Your task to perform on an android device: Add "asus zenbook" to the cart on newegg.com Image 0: 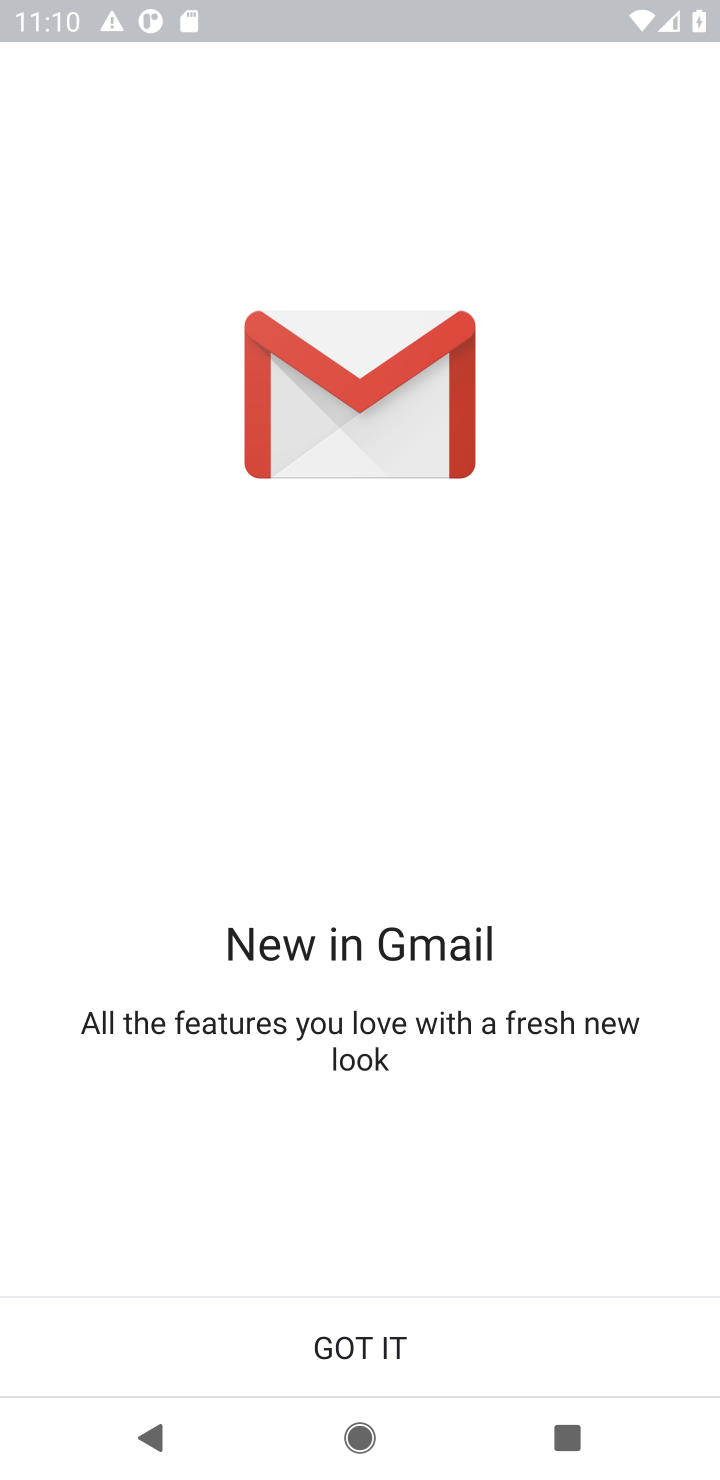
Step 0: press home button
Your task to perform on an android device: Add "asus zenbook" to the cart on newegg.com Image 1: 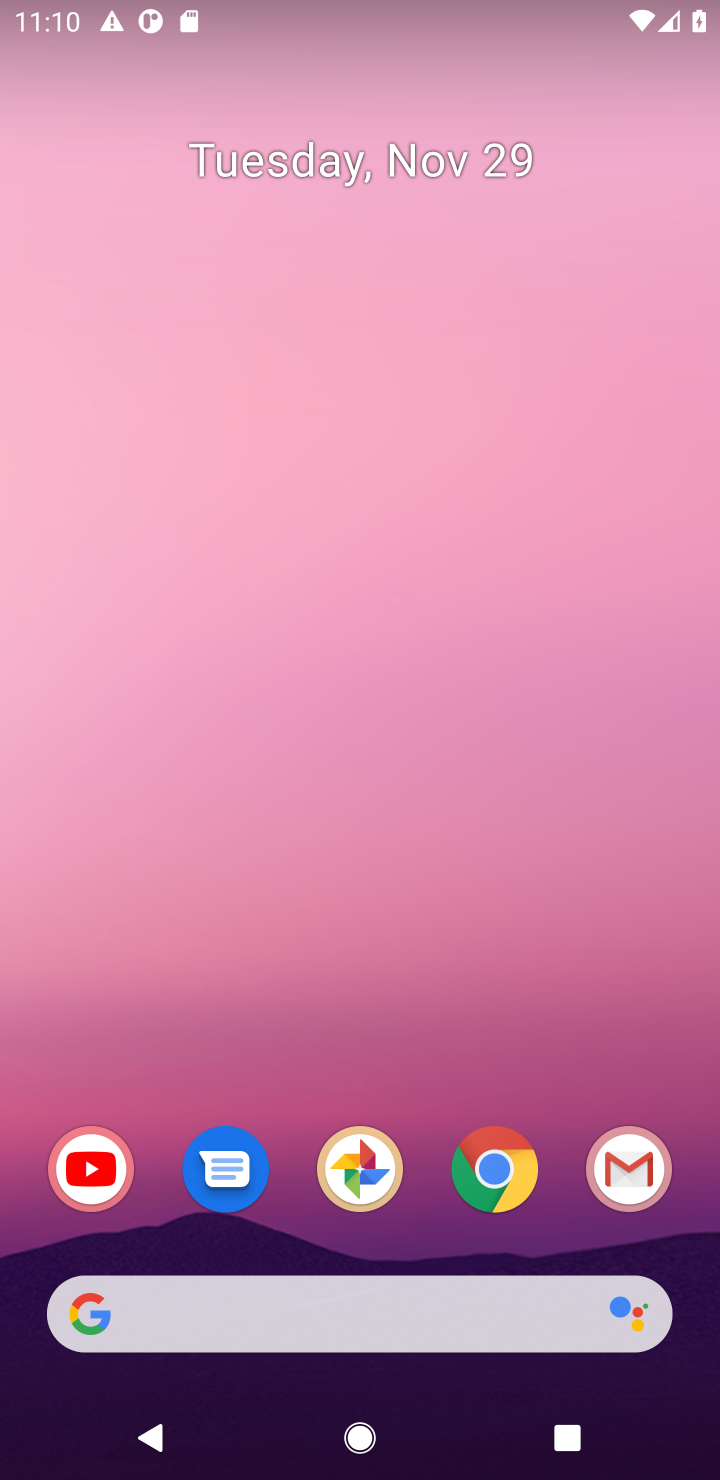
Step 1: click (360, 1308)
Your task to perform on an android device: Add "asus zenbook" to the cart on newegg.com Image 2: 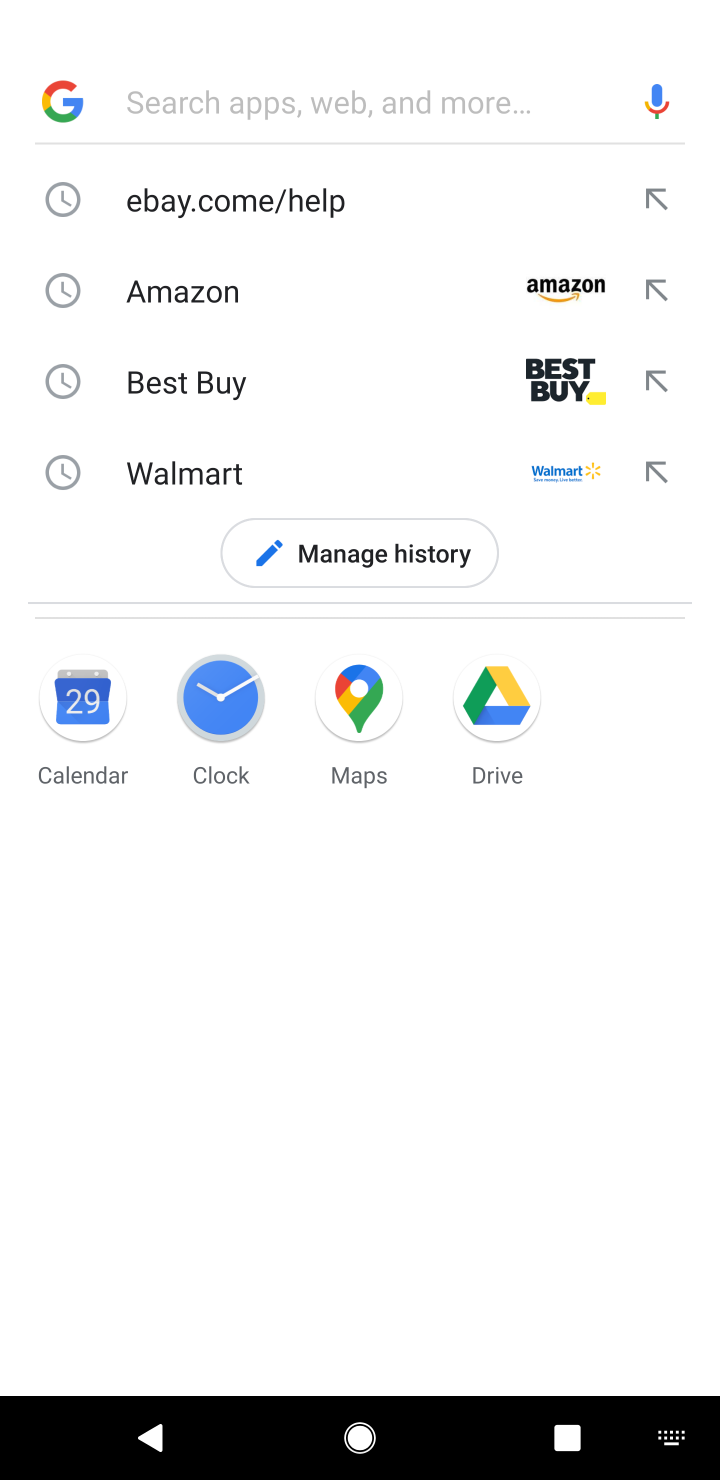
Step 2: type "newegg"
Your task to perform on an android device: Add "asus zenbook" to the cart on newegg.com Image 3: 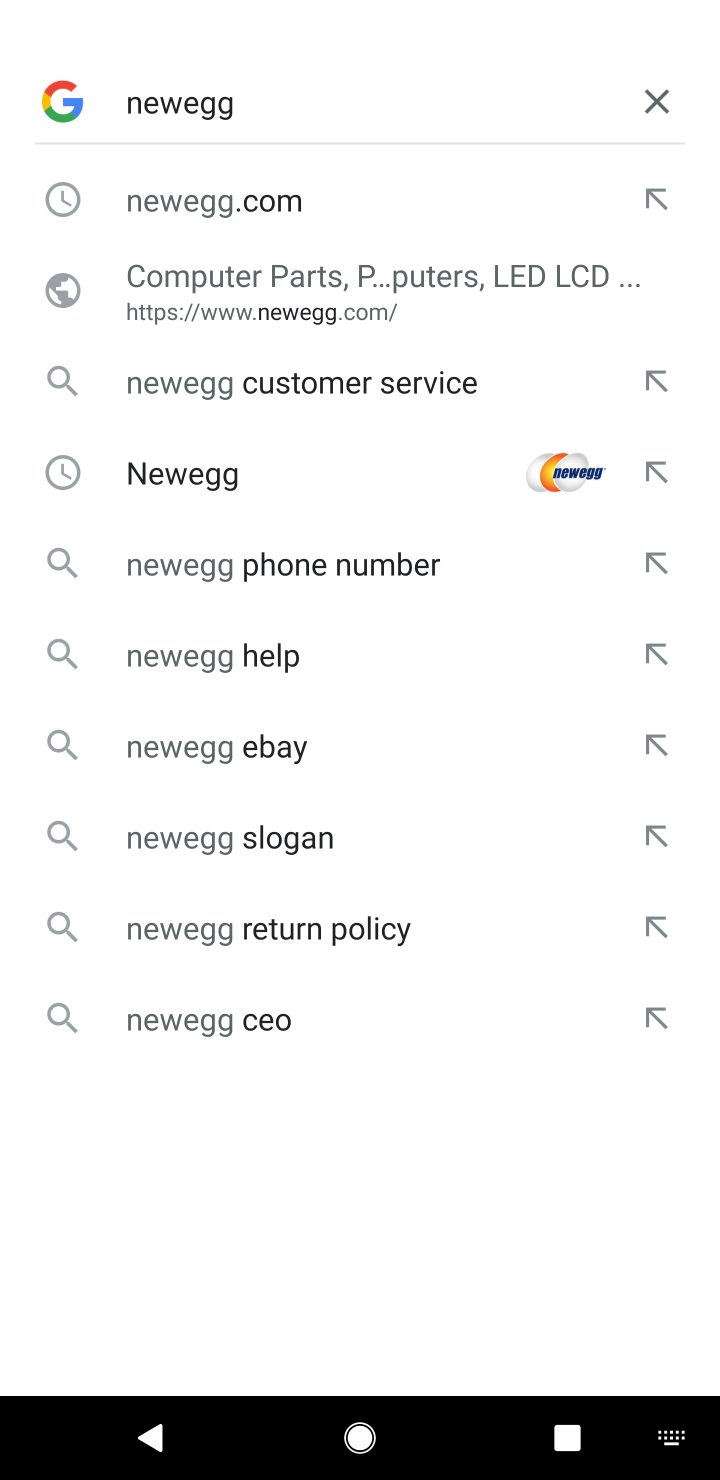
Step 3: click (238, 184)
Your task to perform on an android device: Add "asus zenbook" to the cart on newegg.com Image 4: 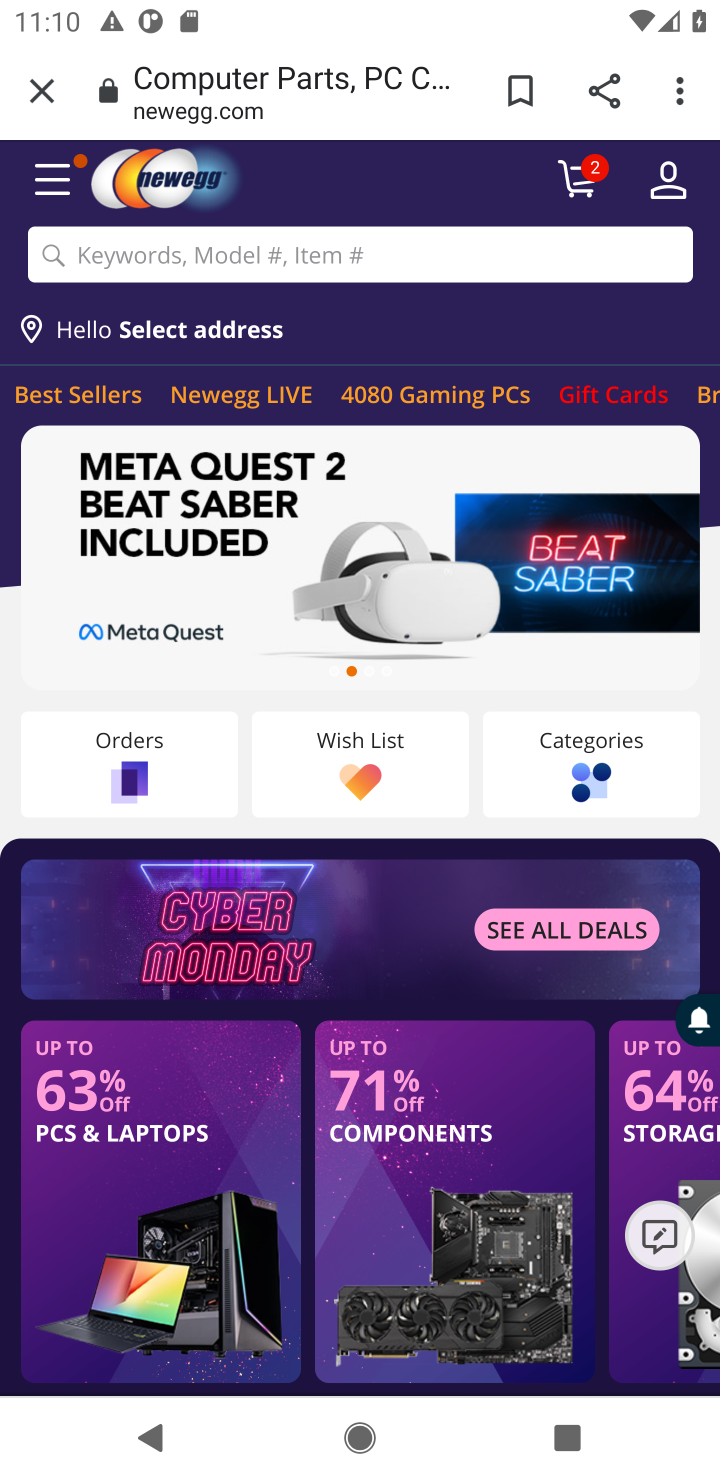
Step 4: click (143, 253)
Your task to perform on an android device: Add "asus zenbook" to the cart on newegg.com Image 5: 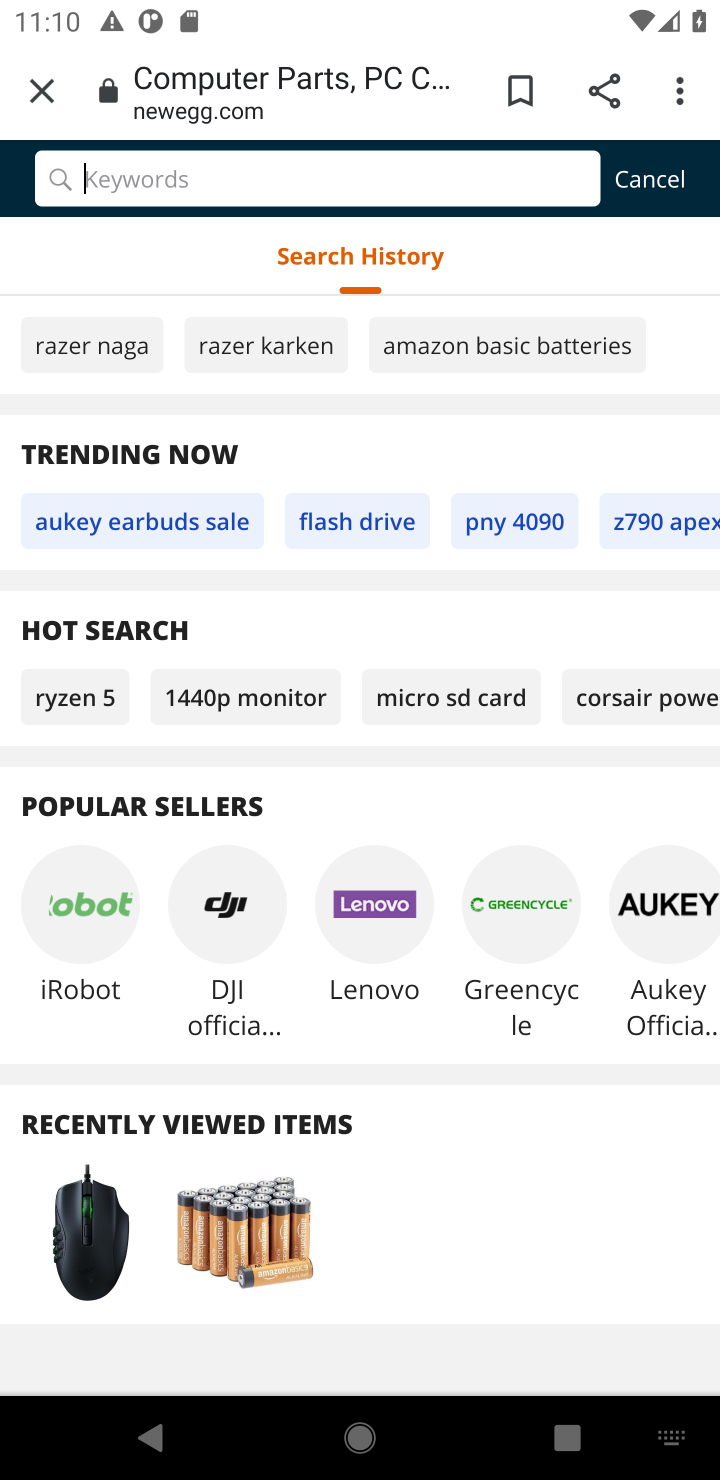
Step 5: type "asus zenbook"
Your task to perform on an android device: Add "asus zenbook" to the cart on newegg.com Image 6: 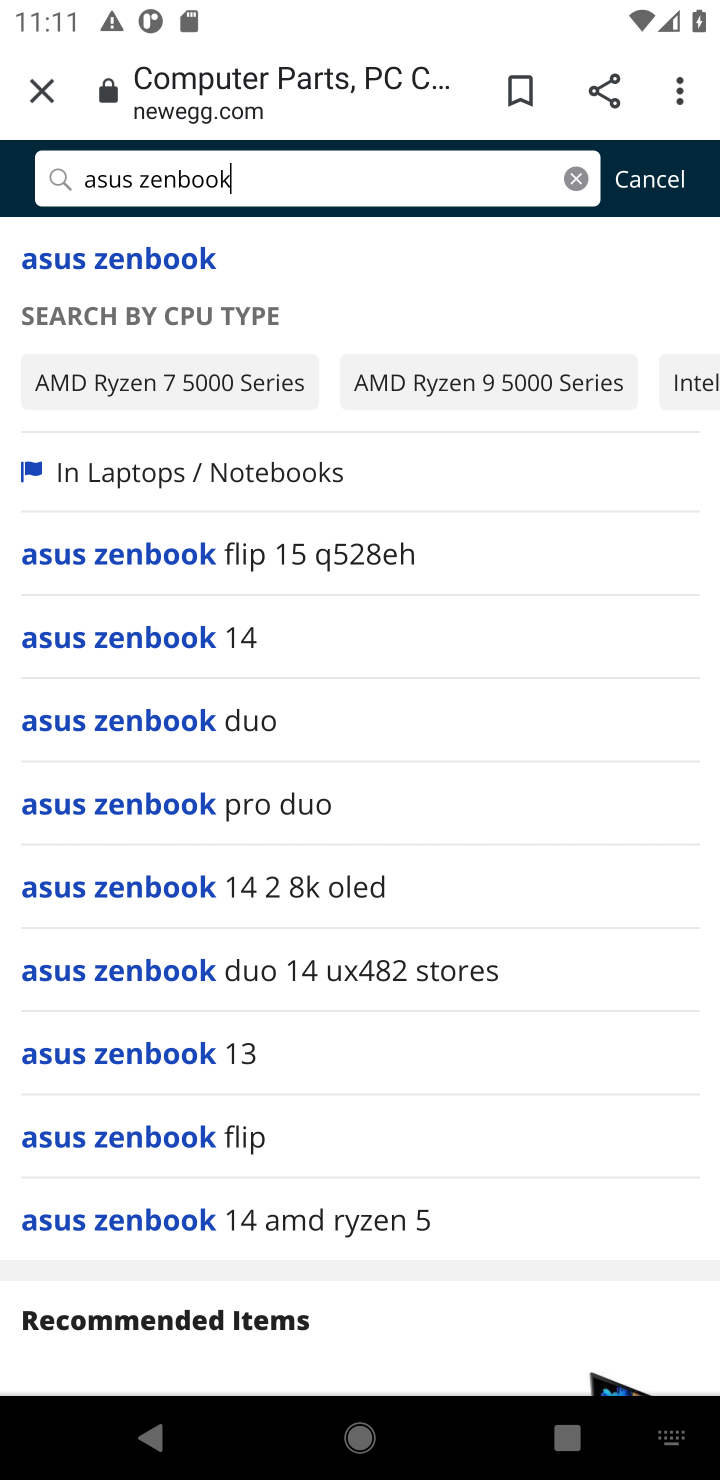
Step 6: click (48, 257)
Your task to perform on an android device: Add "asus zenbook" to the cart on newegg.com Image 7: 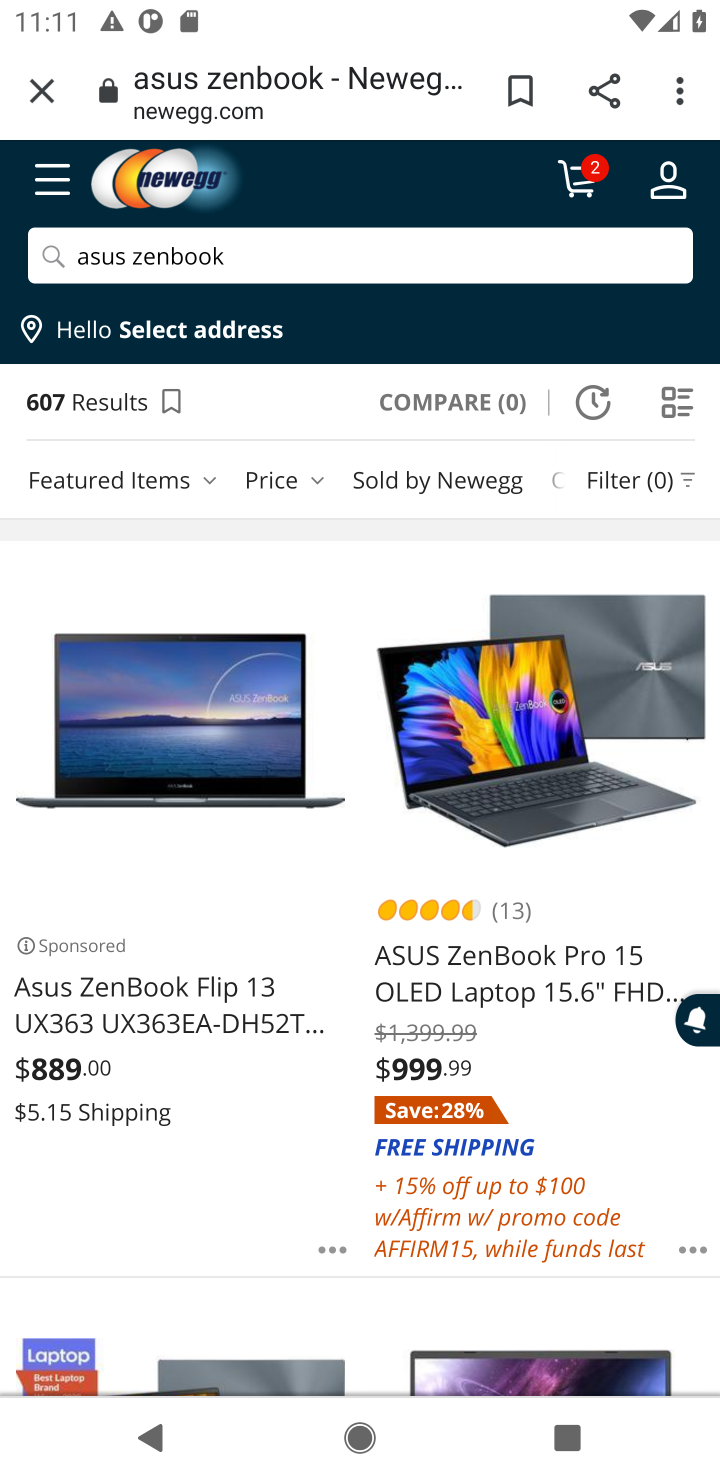
Step 7: click (173, 1052)
Your task to perform on an android device: Add "asus zenbook" to the cart on newegg.com Image 8: 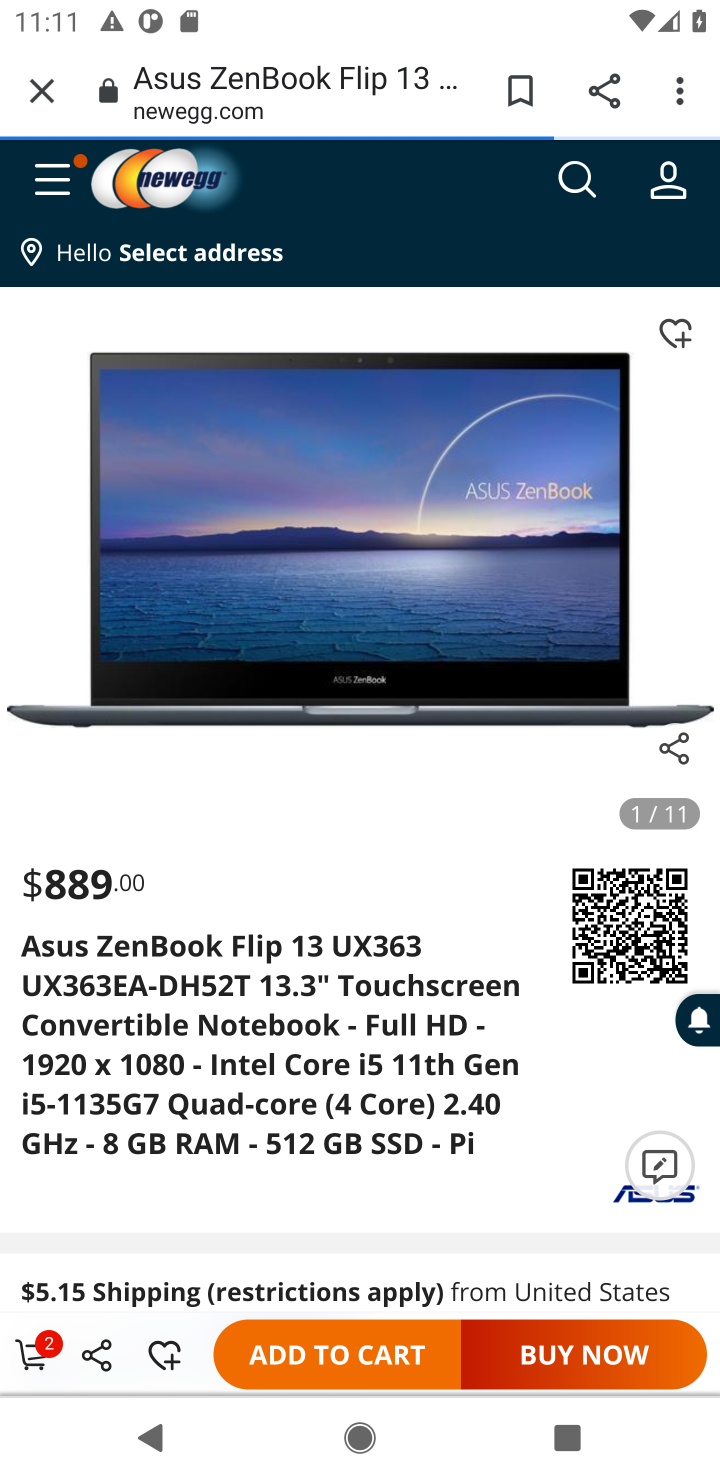
Step 8: click (357, 1339)
Your task to perform on an android device: Add "asus zenbook" to the cart on newegg.com Image 9: 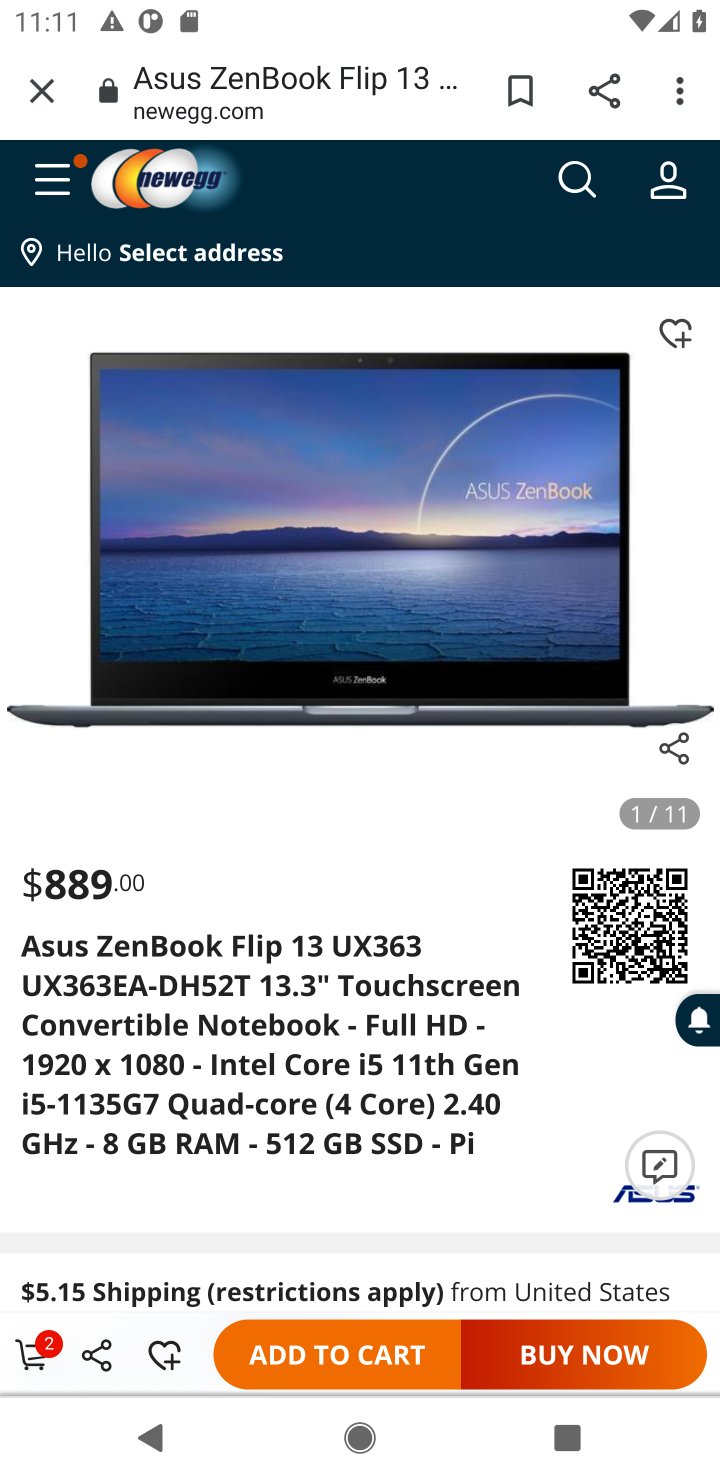
Step 9: task complete